Your task to perform on an android device: toggle airplane mode Image 0: 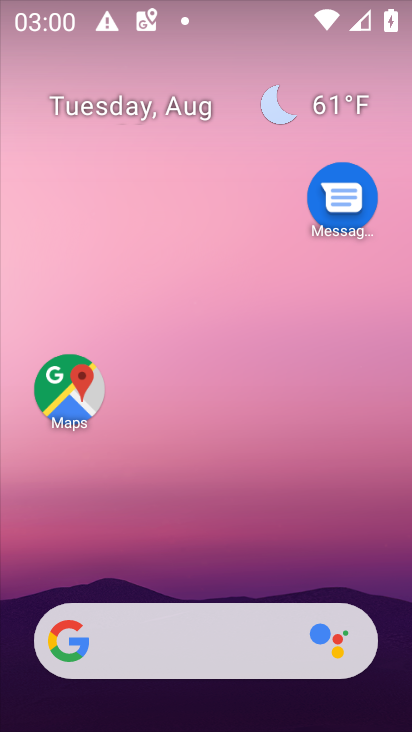
Step 0: drag from (223, 582) to (171, 0)
Your task to perform on an android device: toggle airplane mode Image 1: 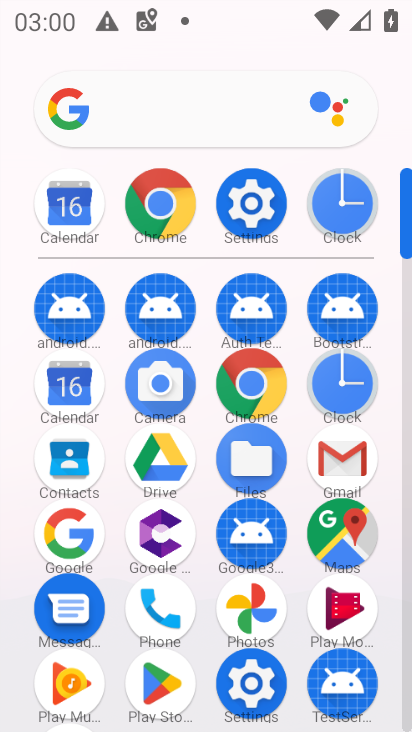
Step 1: click (233, 167)
Your task to perform on an android device: toggle airplane mode Image 2: 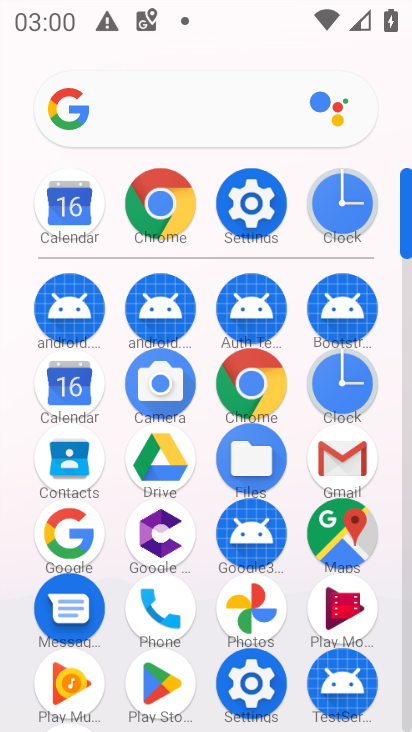
Step 2: click (251, 194)
Your task to perform on an android device: toggle airplane mode Image 3: 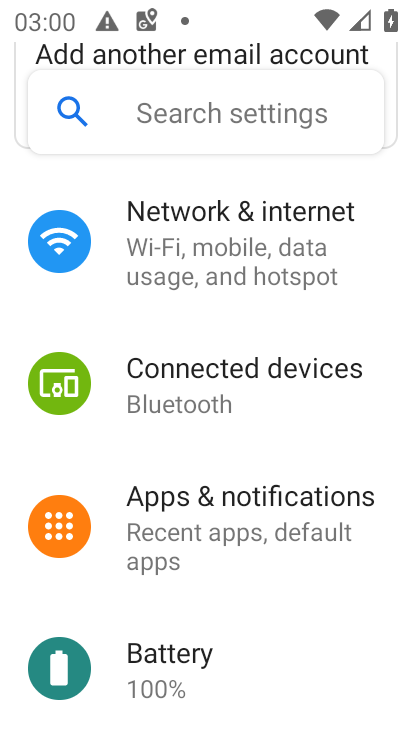
Step 3: click (260, 254)
Your task to perform on an android device: toggle airplane mode Image 4: 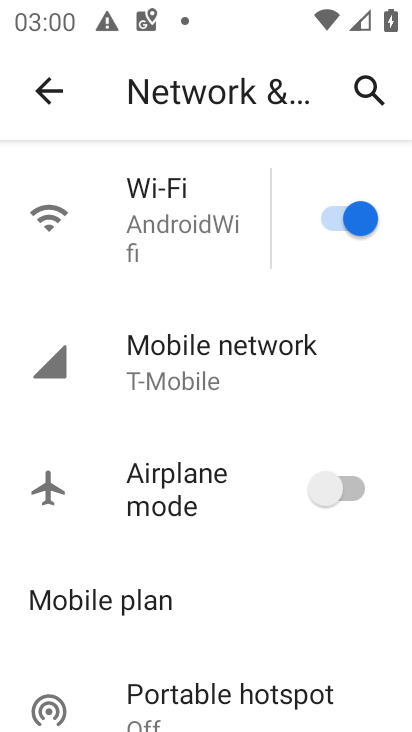
Step 4: click (329, 473)
Your task to perform on an android device: toggle airplane mode Image 5: 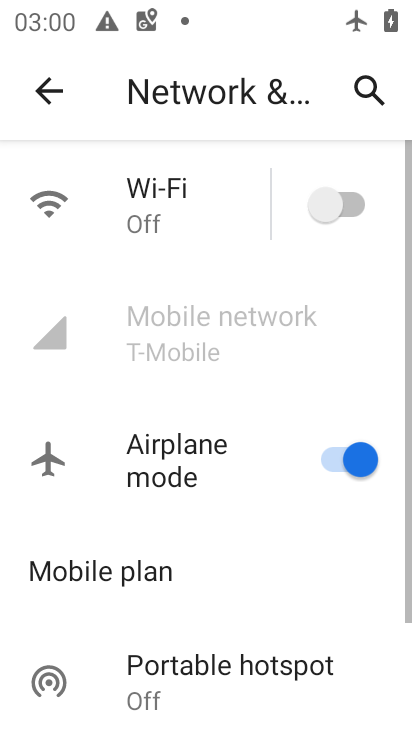
Step 5: click (334, 224)
Your task to perform on an android device: toggle airplane mode Image 6: 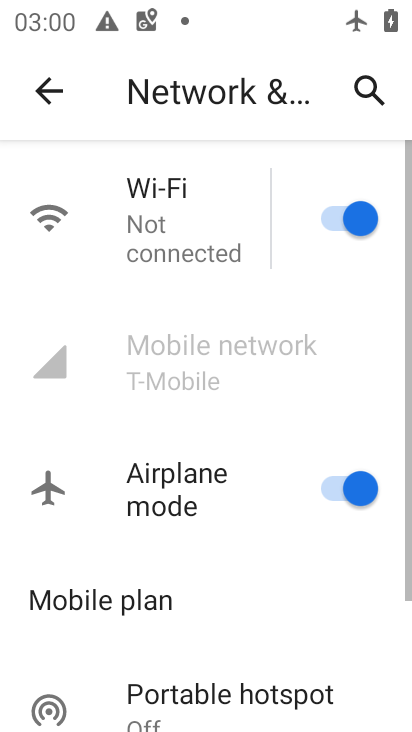
Step 6: task complete